Your task to perform on an android device: Empty the shopping cart on bestbuy.com. Add "logitech g pro" to the cart on bestbuy.com, then select checkout. Image 0: 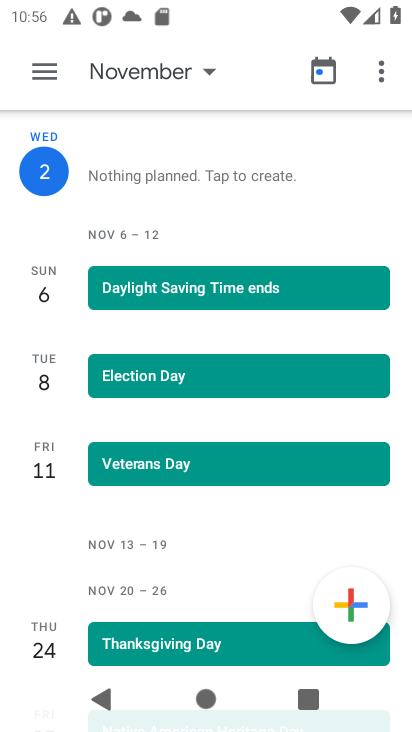
Step 0: press home button
Your task to perform on an android device: Empty the shopping cart on bestbuy.com. Add "logitech g pro" to the cart on bestbuy.com, then select checkout. Image 1: 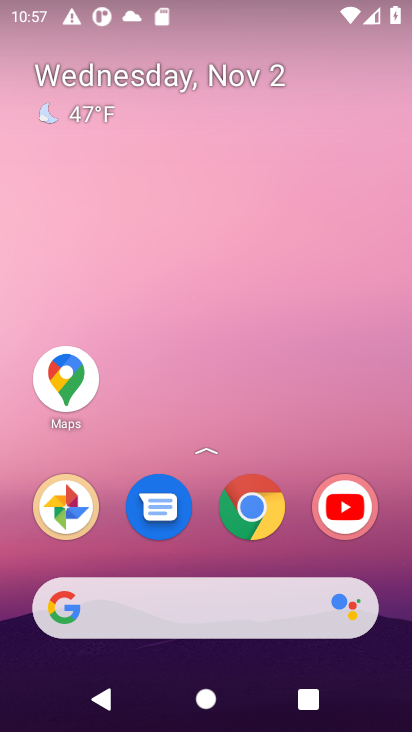
Step 1: task complete